Your task to perform on an android device: Go to internet settings Image 0: 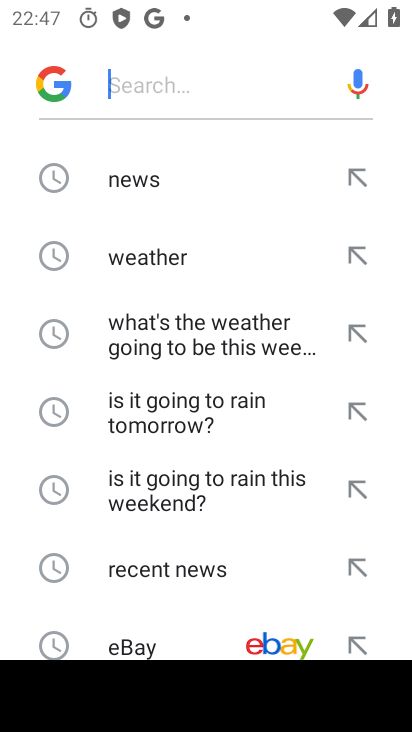
Step 0: press back button
Your task to perform on an android device: Go to internet settings Image 1: 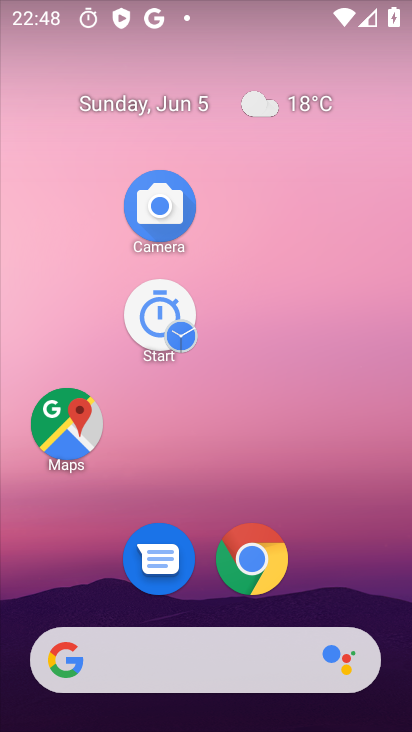
Step 1: drag from (199, 695) to (60, 142)
Your task to perform on an android device: Go to internet settings Image 2: 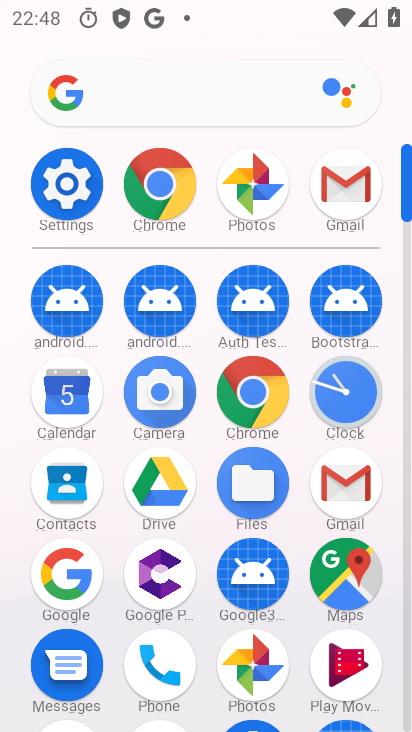
Step 2: click (72, 187)
Your task to perform on an android device: Go to internet settings Image 3: 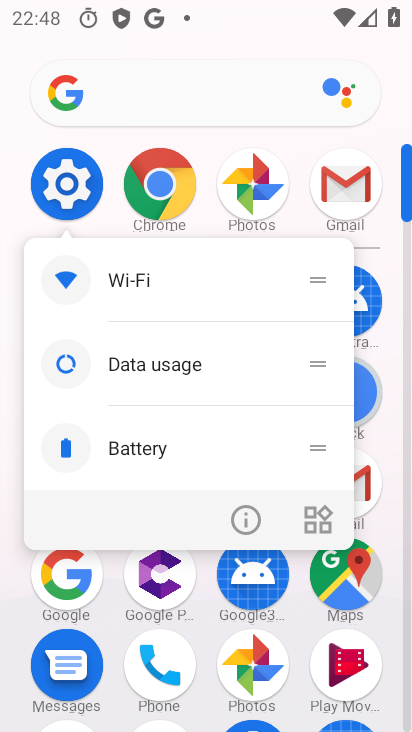
Step 3: click (75, 187)
Your task to perform on an android device: Go to internet settings Image 4: 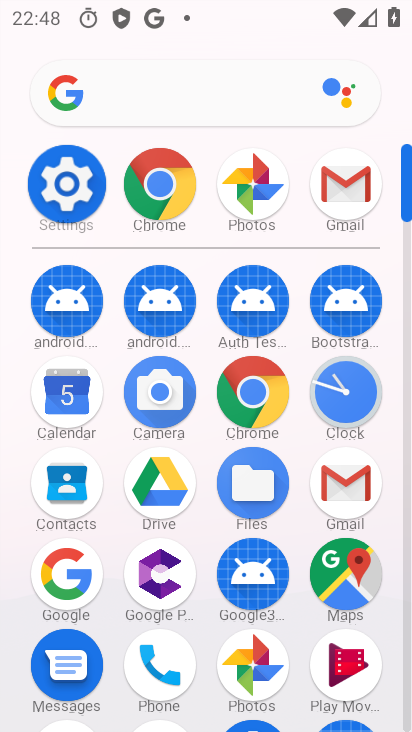
Step 4: click (75, 187)
Your task to perform on an android device: Go to internet settings Image 5: 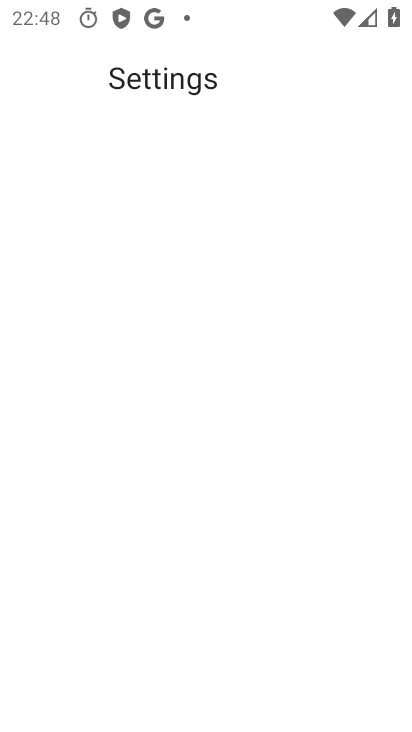
Step 5: click (75, 187)
Your task to perform on an android device: Go to internet settings Image 6: 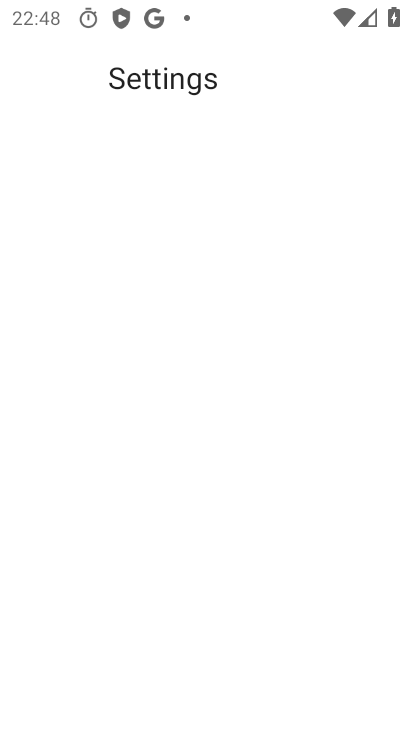
Step 6: click (75, 187)
Your task to perform on an android device: Go to internet settings Image 7: 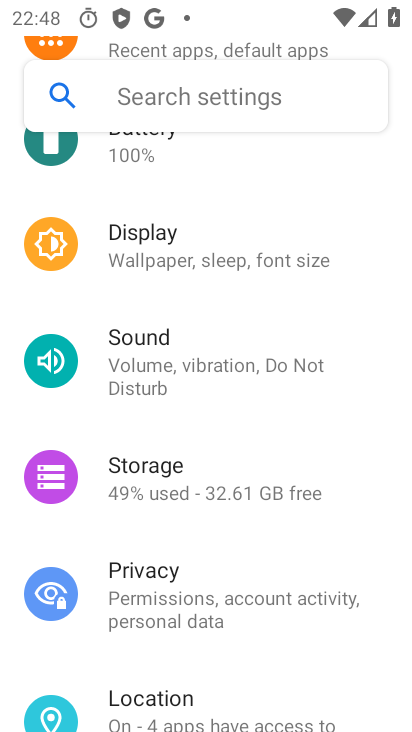
Step 7: drag from (225, 189) to (183, 564)
Your task to perform on an android device: Go to internet settings Image 8: 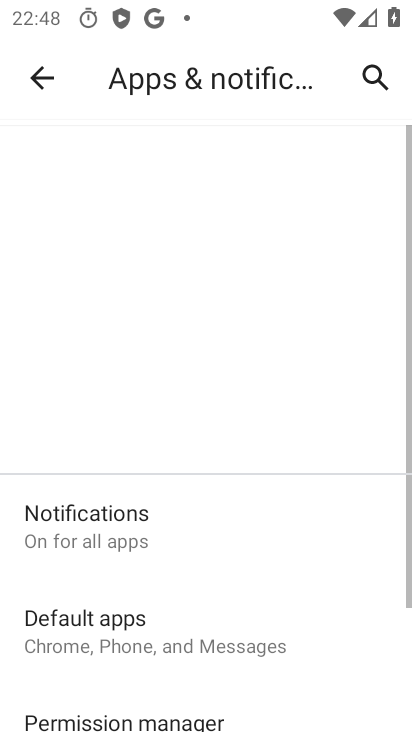
Step 8: drag from (141, 199) to (150, 515)
Your task to perform on an android device: Go to internet settings Image 9: 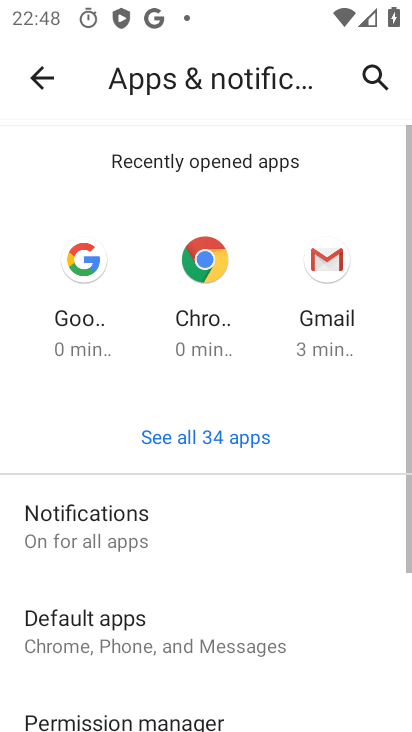
Step 9: click (38, 63)
Your task to perform on an android device: Go to internet settings Image 10: 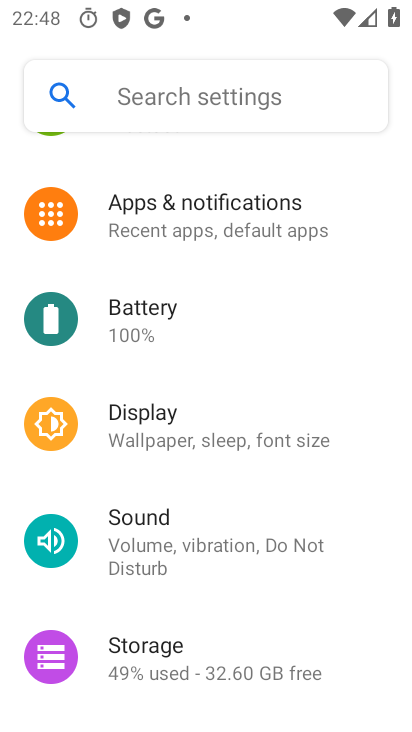
Step 10: drag from (186, 242) to (165, 573)
Your task to perform on an android device: Go to internet settings Image 11: 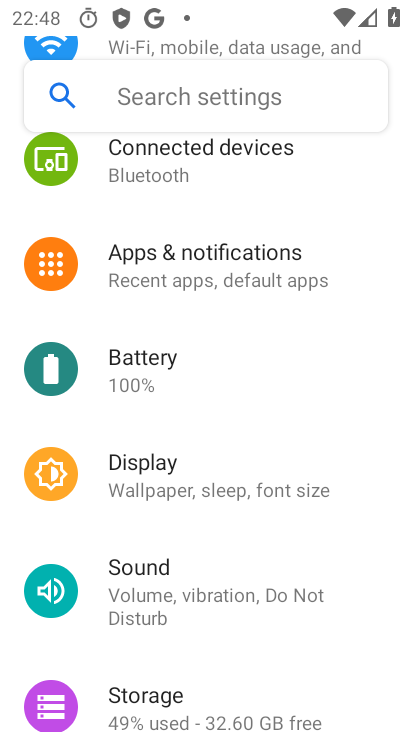
Step 11: click (179, 503)
Your task to perform on an android device: Go to internet settings Image 12: 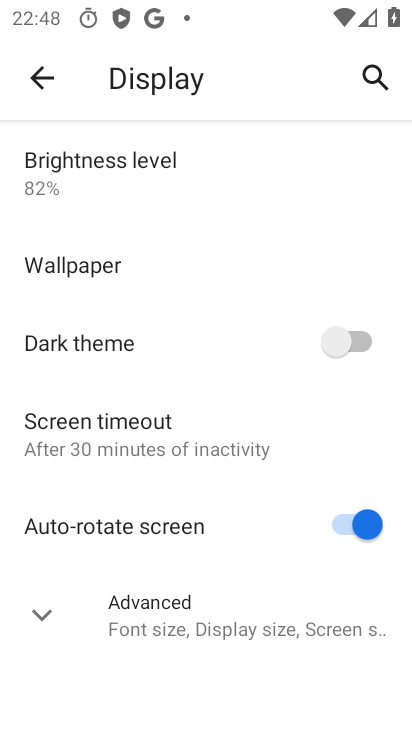
Step 12: click (37, 76)
Your task to perform on an android device: Go to internet settings Image 13: 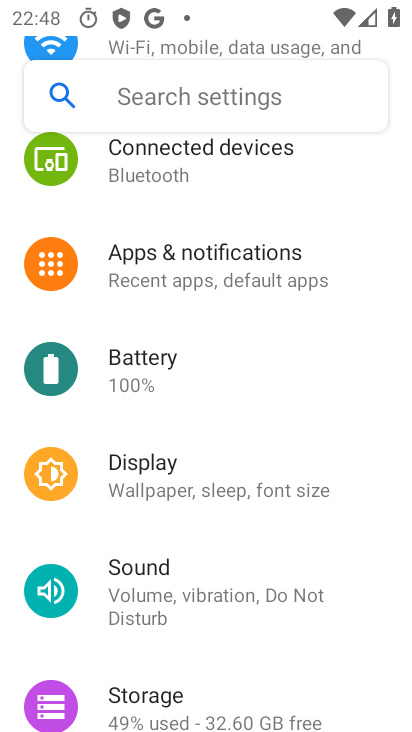
Step 13: drag from (186, 176) to (239, 601)
Your task to perform on an android device: Go to internet settings Image 14: 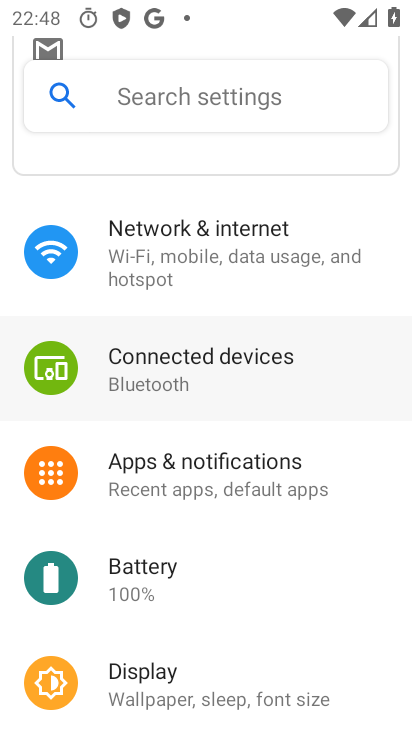
Step 14: drag from (240, 311) to (245, 622)
Your task to perform on an android device: Go to internet settings Image 15: 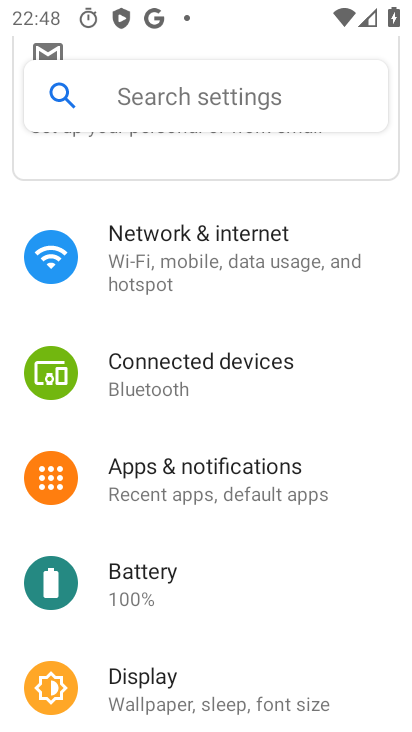
Step 15: click (201, 252)
Your task to perform on an android device: Go to internet settings Image 16: 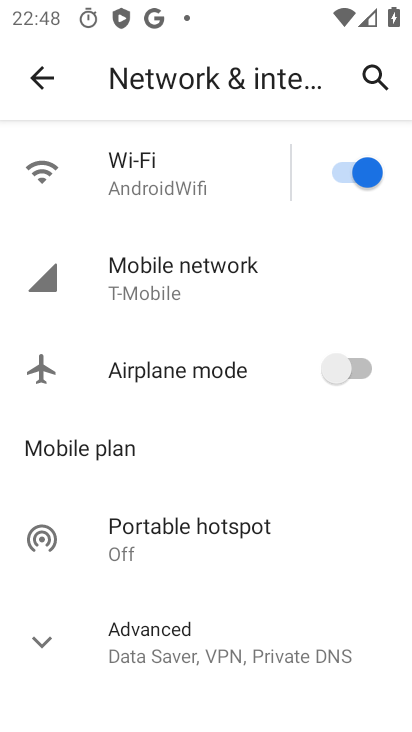
Step 16: task complete